Your task to perform on an android device: Go to Google maps Image 0: 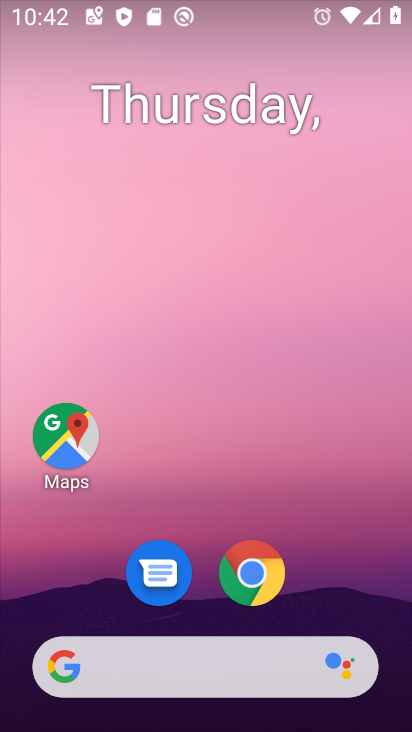
Step 0: click (75, 416)
Your task to perform on an android device: Go to Google maps Image 1: 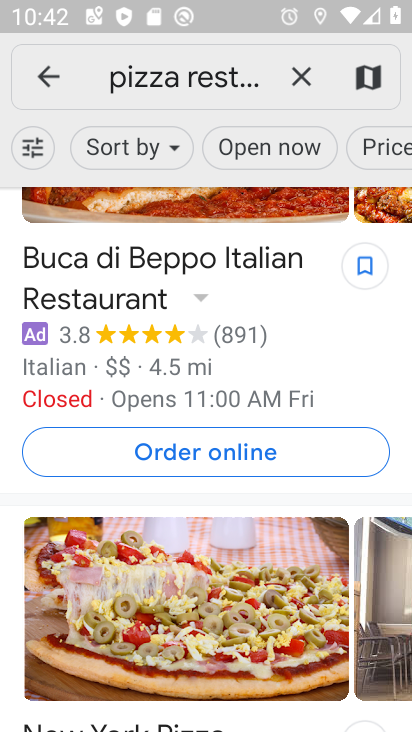
Step 1: task complete